Your task to perform on an android device: find snoozed emails in the gmail app Image 0: 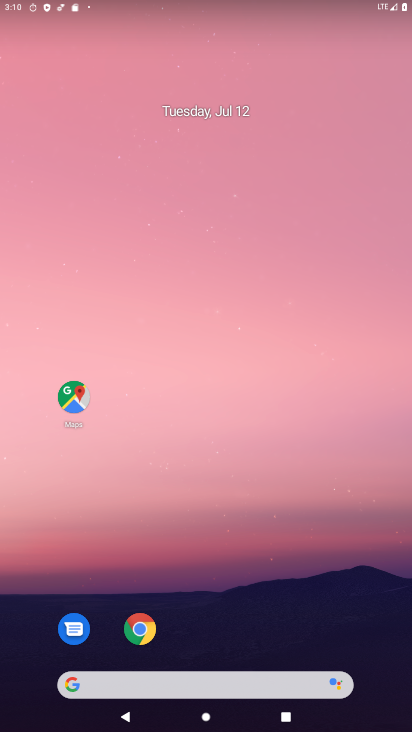
Step 0: drag from (274, 547) to (331, 33)
Your task to perform on an android device: find snoozed emails in the gmail app Image 1: 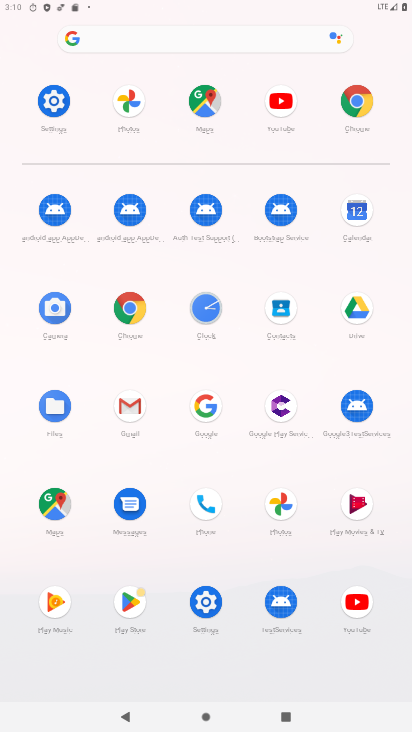
Step 1: click (129, 395)
Your task to perform on an android device: find snoozed emails in the gmail app Image 2: 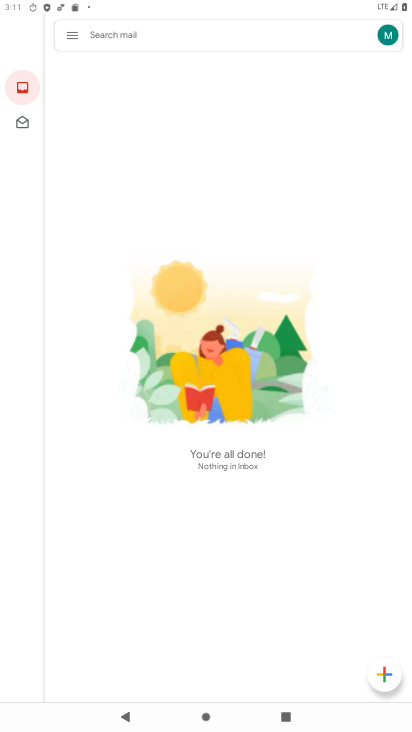
Step 2: click (66, 25)
Your task to perform on an android device: find snoozed emails in the gmail app Image 3: 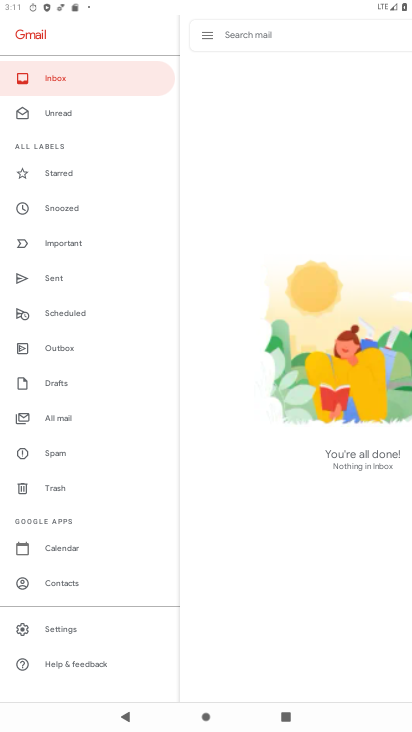
Step 3: click (57, 202)
Your task to perform on an android device: find snoozed emails in the gmail app Image 4: 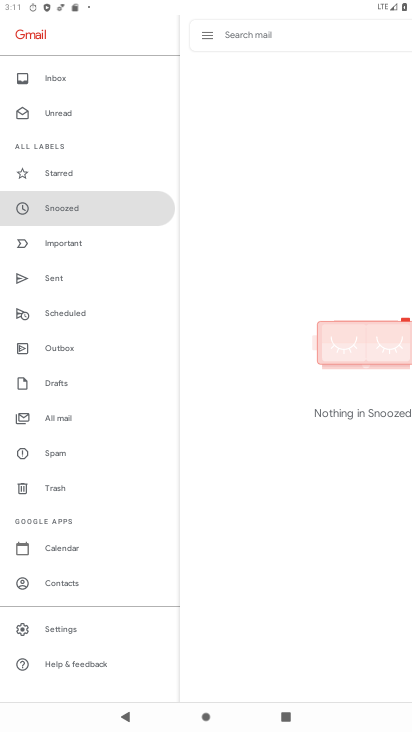
Step 4: task complete